Your task to perform on an android device: open a new tab in the chrome app Image 0: 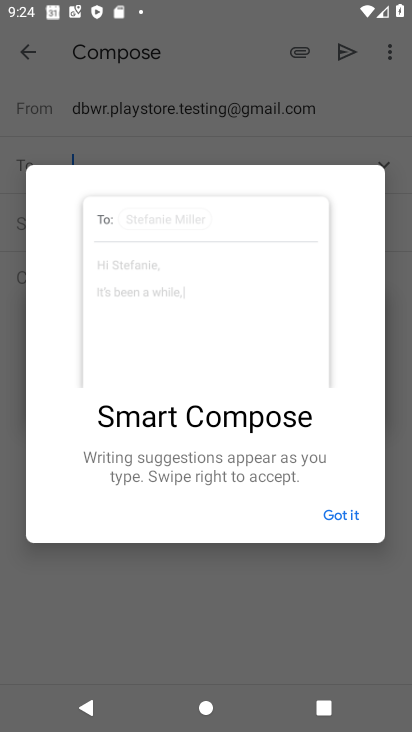
Step 0: press home button
Your task to perform on an android device: open a new tab in the chrome app Image 1: 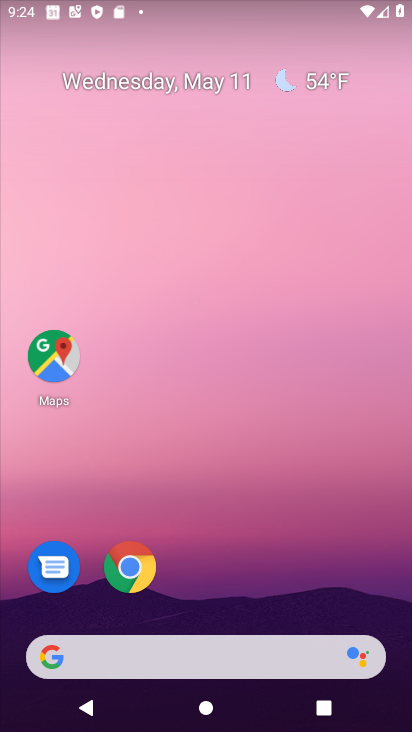
Step 1: click (132, 569)
Your task to perform on an android device: open a new tab in the chrome app Image 2: 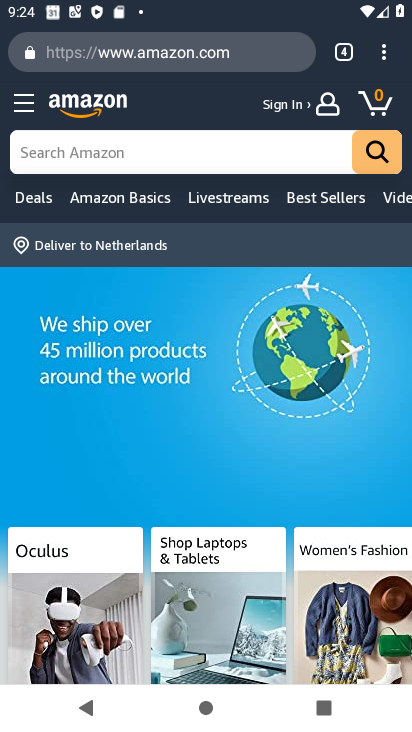
Step 2: click (386, 50)
Your task to perform on an android device: open a new tab in the chrome app Image 3: 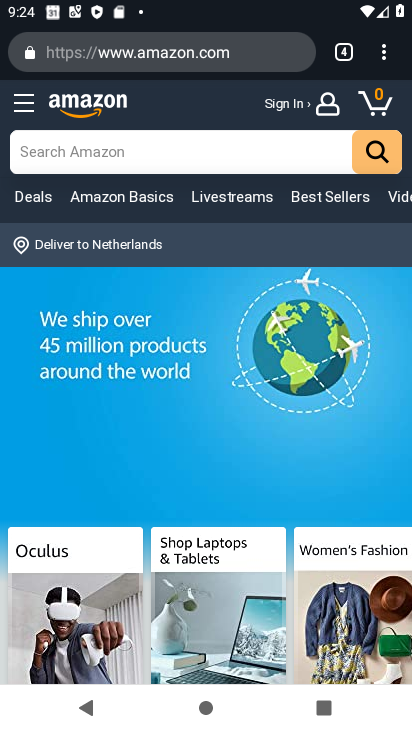
Step 3: click (381, 60)
Your task to perform on an android device: open a new tab in the chrome app Image 4: 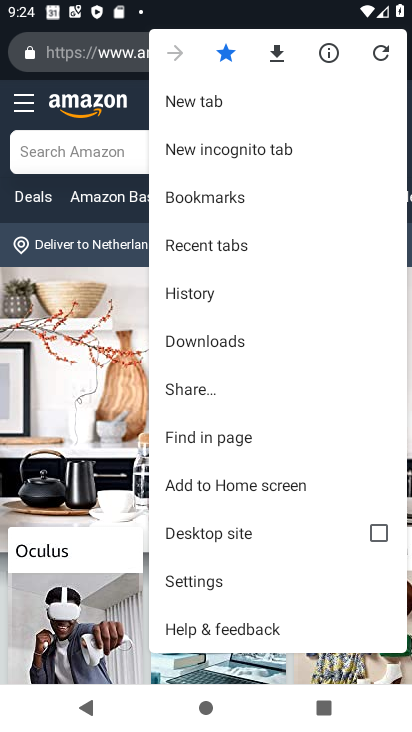
Step 4: click (198, 111)
Your task to perform on an android device: open a new tab in the chrome app Image 5: 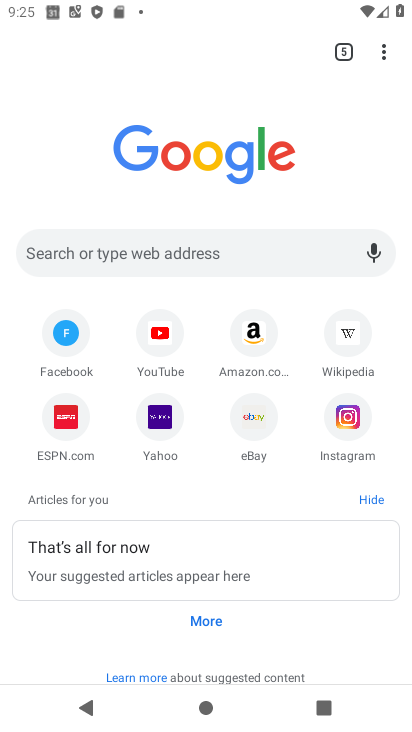
Step 5: task complete